Your task to perform on an android device: Open privacy settings Image 0: 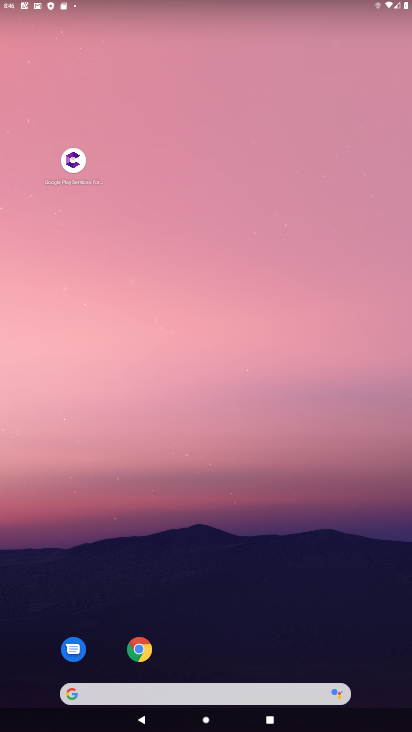
Step 0: drag from (261, 625) to (304, 228)
Your task to perform on an android device: Open privacy settings Image 1: 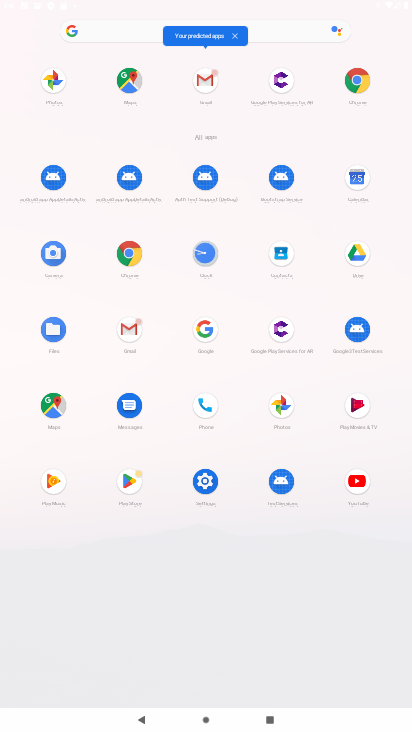
Step 1: click (206, 486)
Your task to perform on an android device: Open privacy settings Image 2: 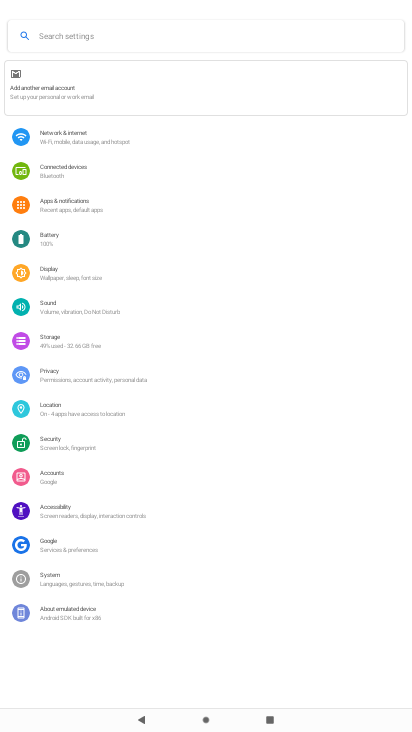
Step 2: click (63, 372)
Your task to perform on an android device: Open privacy settings Image 3: 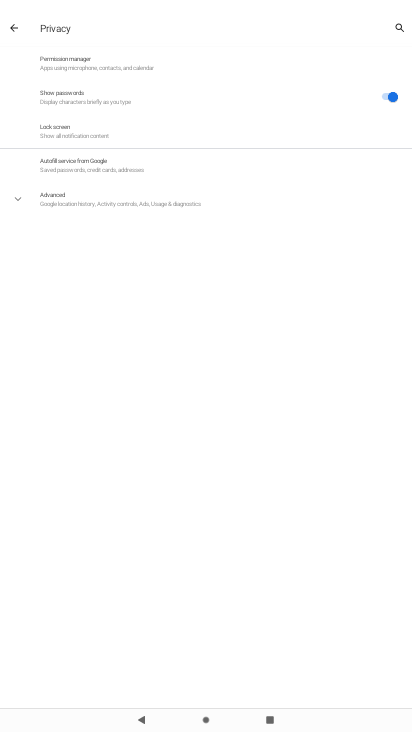
Step 3: task complete